Your task to perform on an android device: delete the emails in spam in the gmail app Image 0: 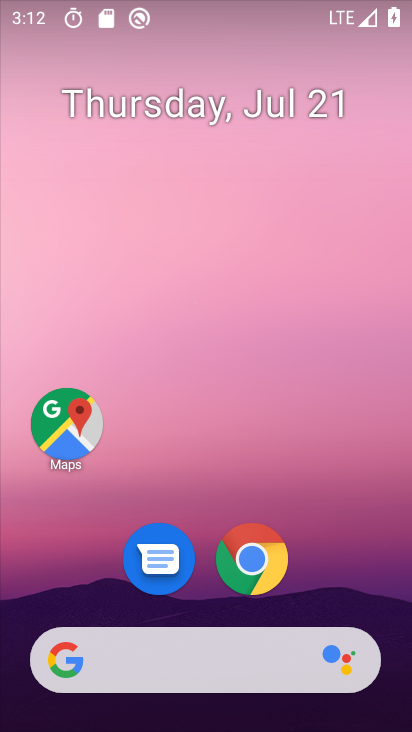
Step 0: drag from (384, 577) to (362, 99)
Your task to perform on an android device: delete the emails in spam in the gmail app Image 1: 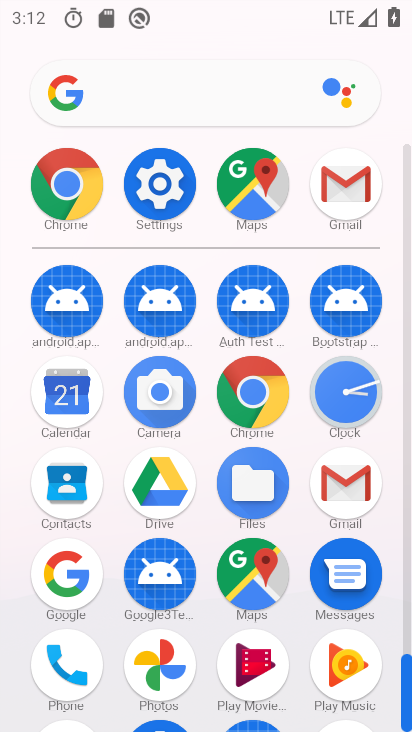
Step 1: click (356, 478)
Your task to perform on an android device: delete the emails in spam in the gmail app Image 2: 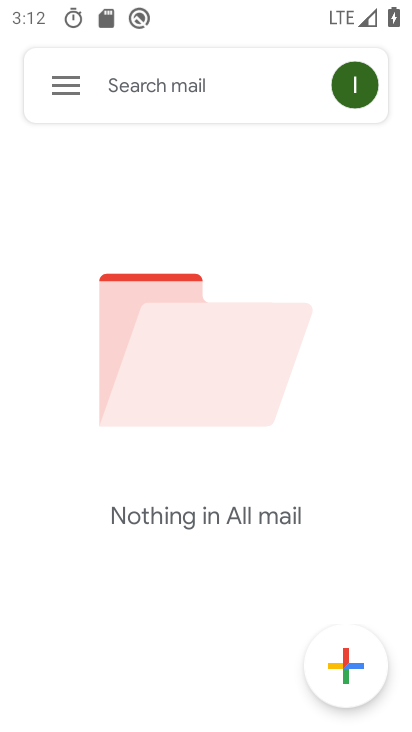
Step 2: click (54, 79)
Your task to perform on an android device: delete the emails in spam in the gmail app Image 3: 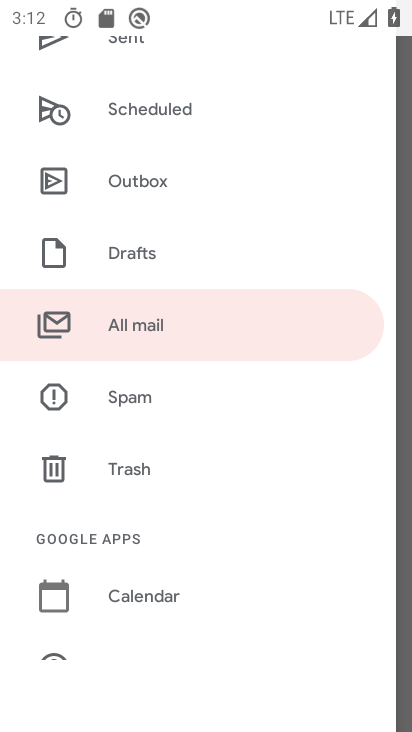
Step 3: click (158, 394)
Your task to perform on an android device: delete the emails in spam in the gmail app Image 4: 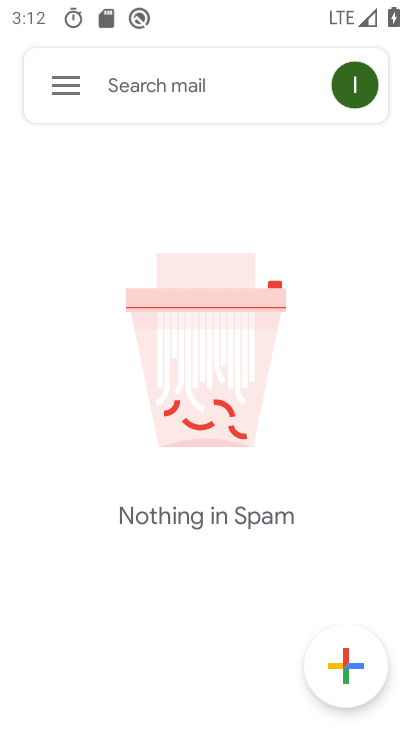
Step 4: task complete